Your task to perform on an android device: turn off javascript in the chrome app Image 0: 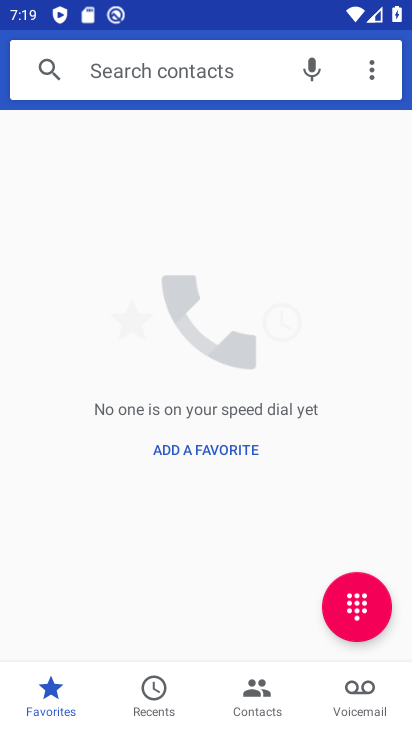
Step 0: press home button
Your task to perform on an android device: turn off javascript in the chrome app Image 1: 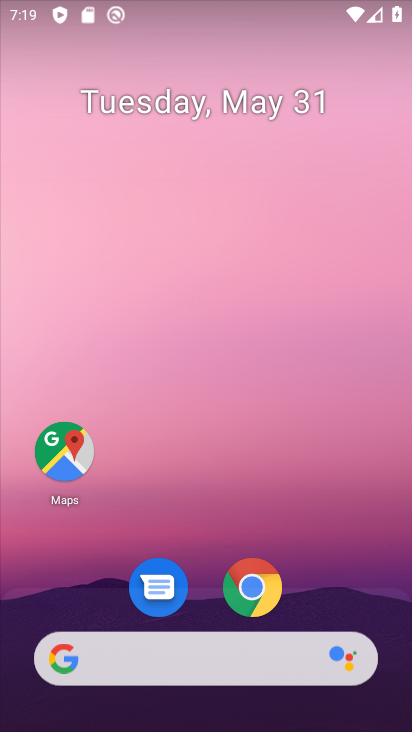
Step 1: click (253, 596)
Your task to perform on an android device: turn off javascript in the chrome app Image 2: 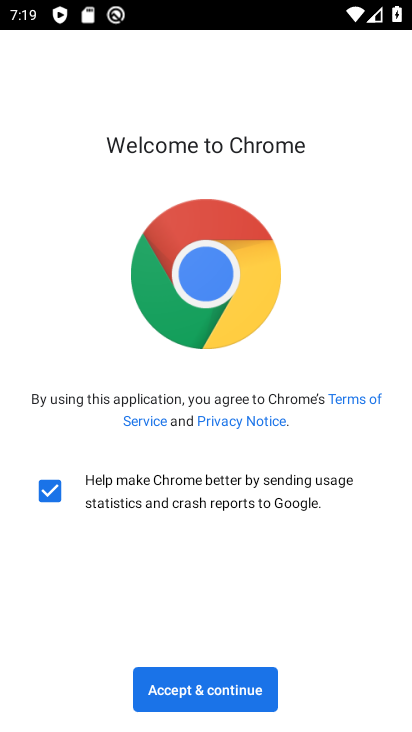
Step 2: click (177, 696)
Your task to perform on an android device: turn off javascript in the chrome app Image 3: 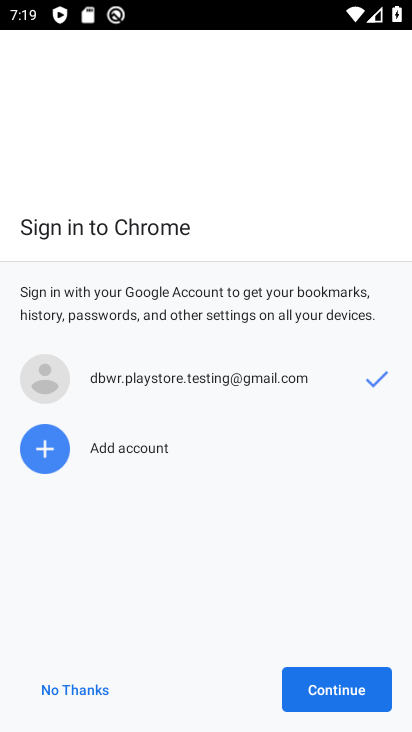
Step 3: click (326, 690)
Your task to perform on an android device: turn off javascript in the chrome app Image 4: 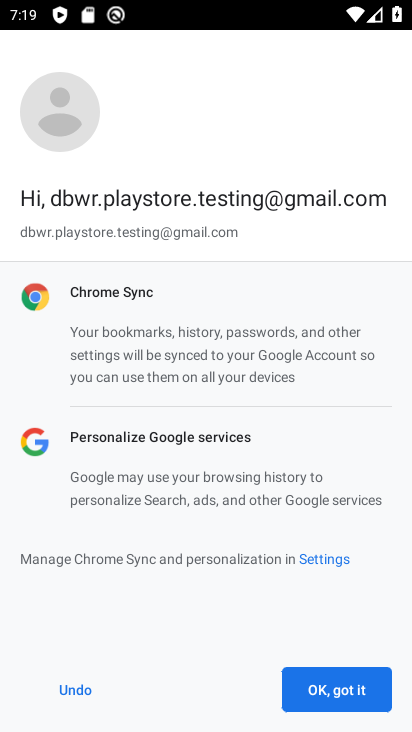
Step 4: click (326, 690)
Your task to perform on an android device: turn off javascript in the chrome app Image 5: 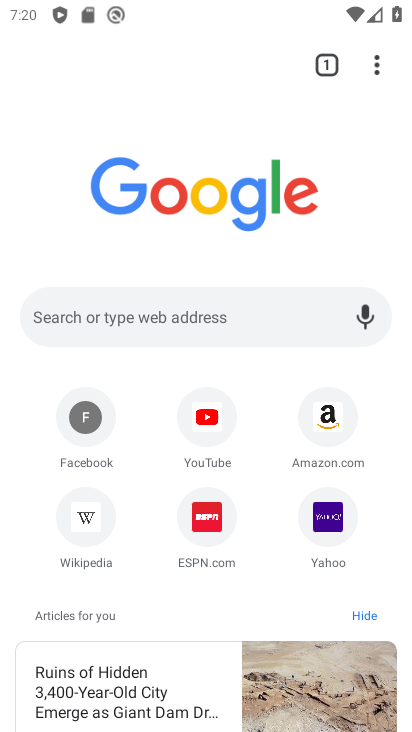
Step 5: click (372, 69)
Your task to perform on an android device: turn off javascript in the chrome app Image 6: 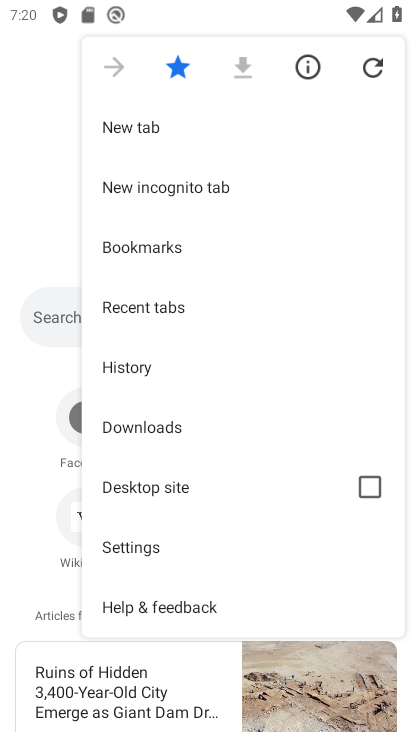
Step 6: click (143, 547)
Your task to perform on an android device: turn off javascript in the chrome app Image 7: 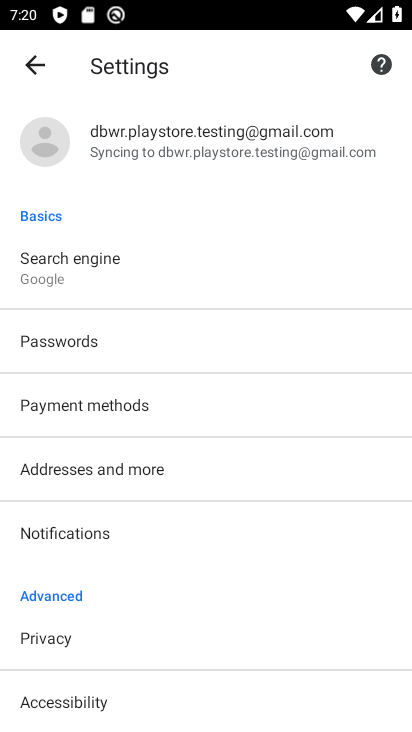
Step 7: drag from (114, 616) to (116, 219)
Your task to perform on an android device: turn off javascript in the chrome app Image 8: 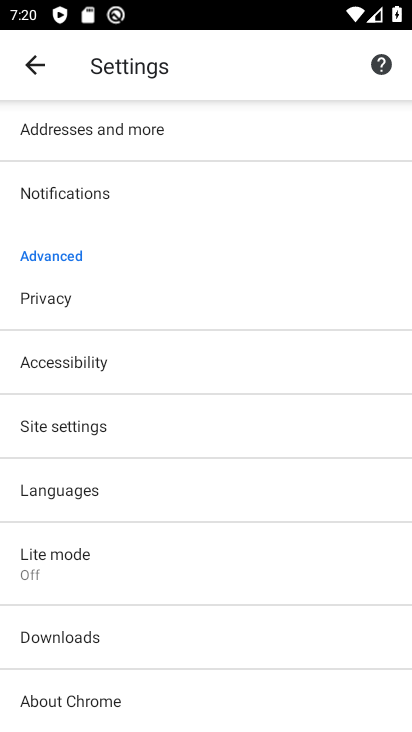
Step 8: click (63, 428)
Your task to perform on an android device: turn off javascript in the chrome app Image 9: 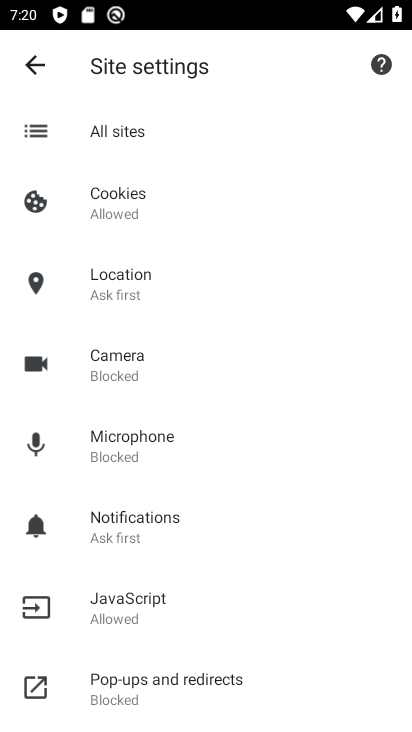
Step 9: click (132, 617)
Your task to perform on an android device: turn off javascript in the chrome app Image 10: 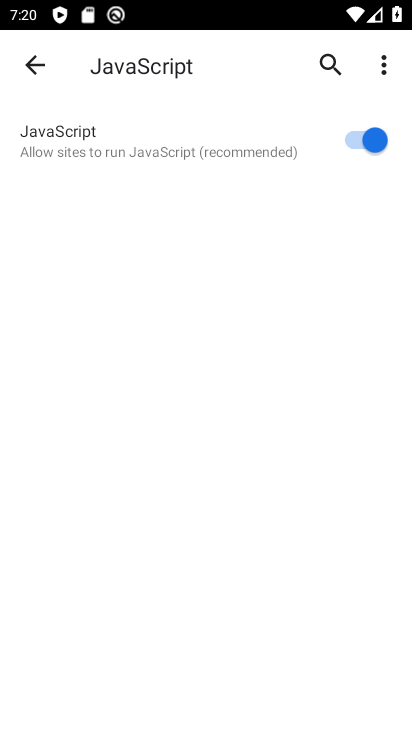
Step 10: click (359, 139)
Your task to perform on an android device: turn off javascript in the chrome app Image 11: 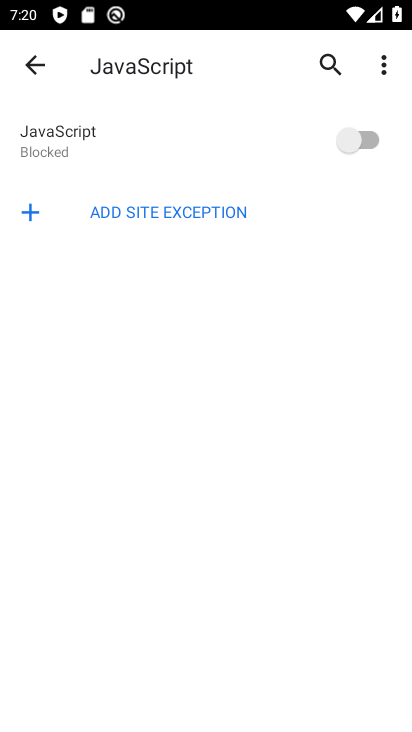
Step 11: task complete